Your task to perform on an android device: open chrome privacy settings Image 0: 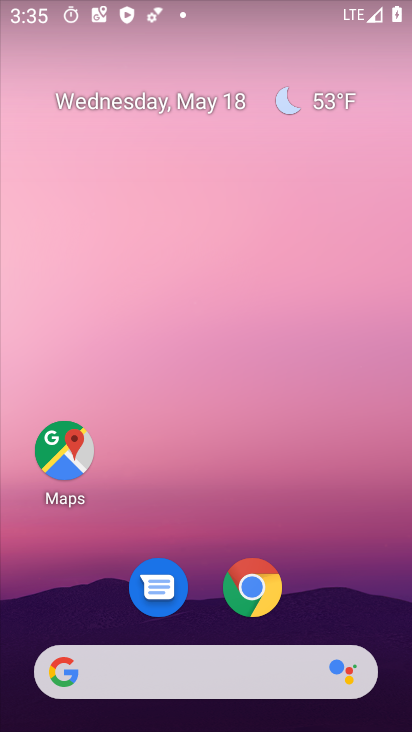
Step 0: drag from (204, 587) to (212, 167)
Your task to perform on an android device: open chrome privacy settings Image 1: 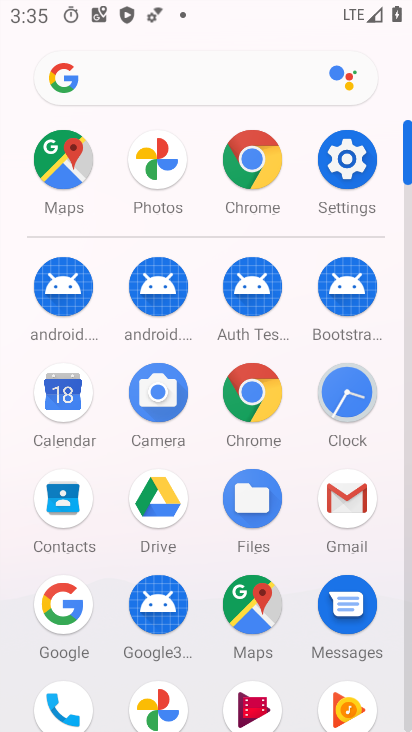
Step 1: click (257, 179)
Your task to perform on an android device: open chrome privacy settings Image 2: 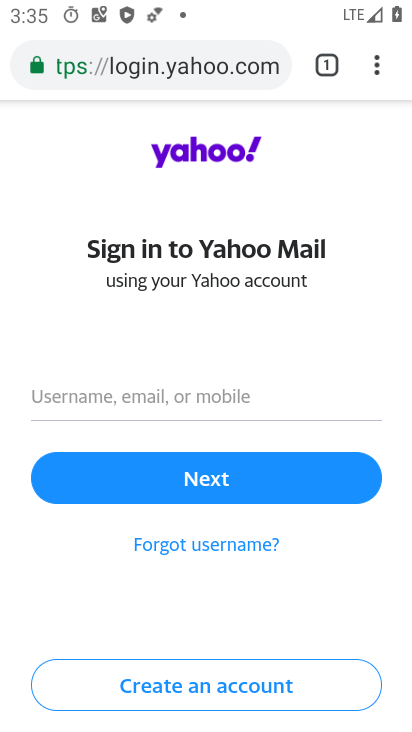
Step 2: click (380, 72)
Your task to perform on an android device: open chrome privacy settings Image 3: 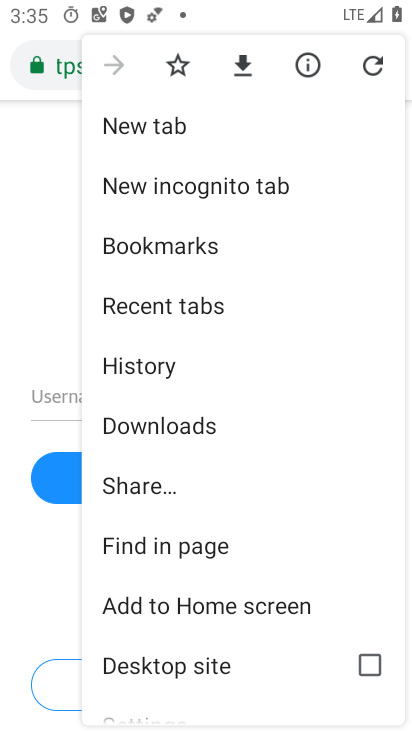
Step 3: drag from (252, 395) to (283, 139)
Your task to perform on an android device: open chrome privacy settings Image 4: 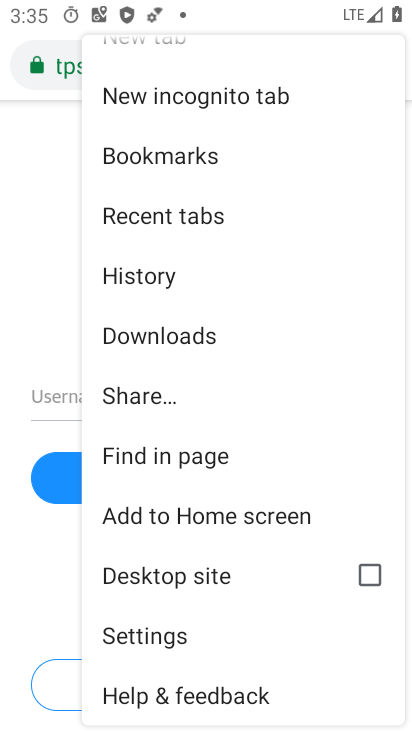
Step 4: click (156, 636)
Your task to perform on an android device: open chrome privacy settings Image 5: 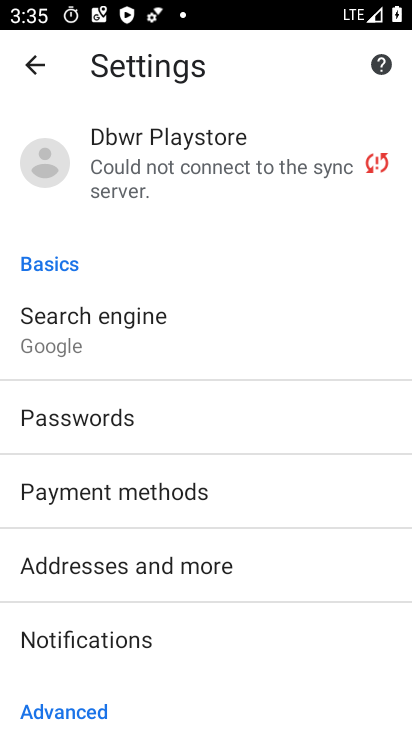
Step 5: drag from (164, 502) to (205, 323)
Your task to perform on an android device: open chrome privacy settings Image 6: 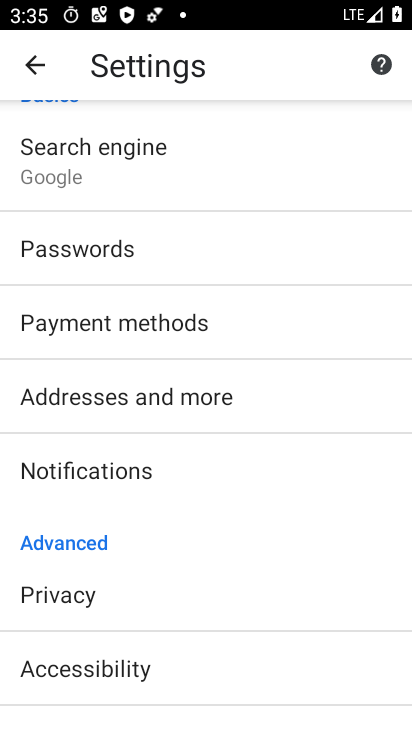
Step 6: click (93, 616)
Your task to perform on an android device: open chrome privacy settings Image 7: 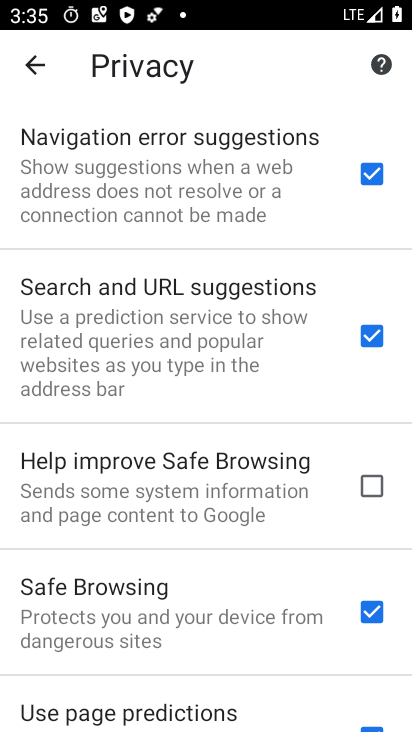
Step 7: task complete